Your task to perform on an android device: Open the calendar and show me this week's events? Image 0: 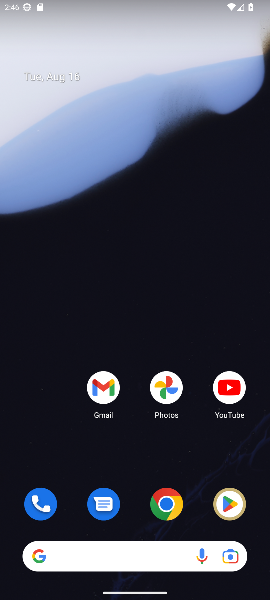
Step 0: drag from (102, 542) to (110, 280)
Your task to perform on an android device: Open the calendar and show me this week's events? Image 1: 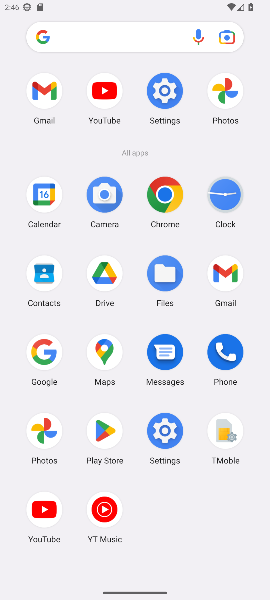
Step 1: click (37, 189)
Your task to perform on an android device: Open the calendar and show me this week's events? Image 2: 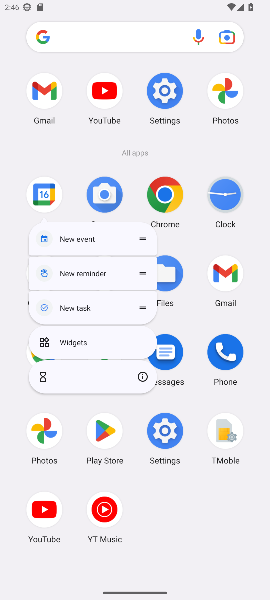
Step 2: click (47, 195)
Your task to perform on an android device: Open the calendar and show me this week's events? Image 3: 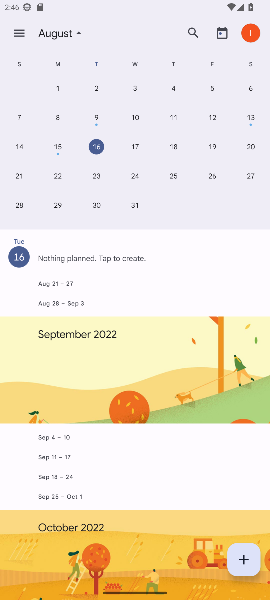
Step 3: click (131, 137)
Your task to perform on an android device: Open the calendar and show me this week's events? Image 4: 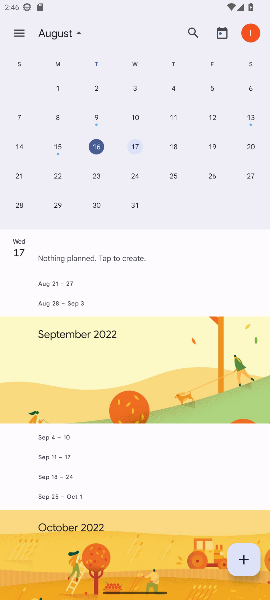
Step 4: click (172, 137)
Your task to perform on an android device: Open the calendar and show me this week's events? Image 5: 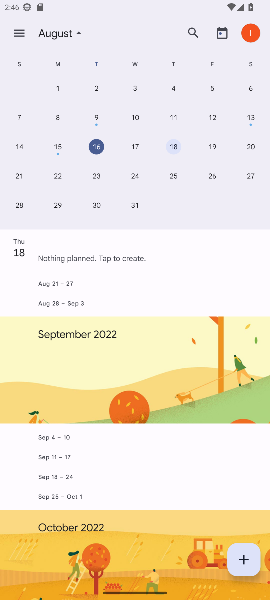
Step 5: click (211, 147)
Your task to perform on an android device: Open the calendar and show me this week's events? Image 6: 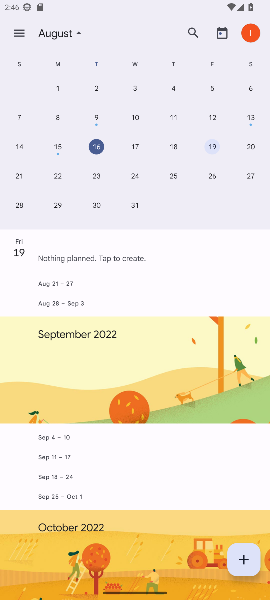
Step 6: click (250, 153)
Your task to perform on an android device: Open the calendar and show me this week's events? Image 7: 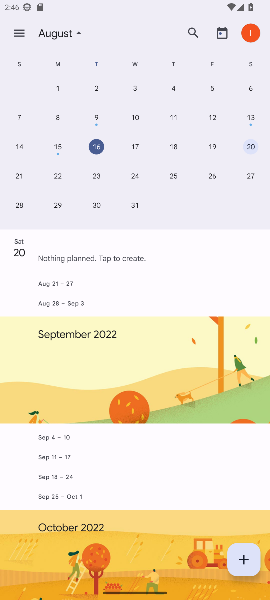
Step 7: click (18, 175)
Your task to perform on an android device: Open the calendar and show me this week's events? Image 8: 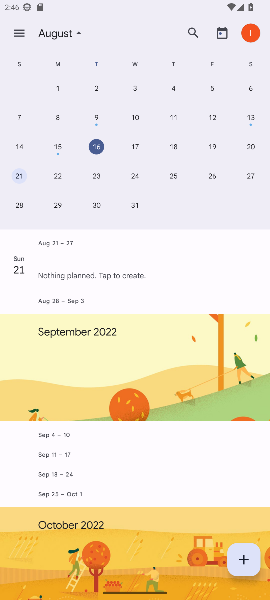
Step 8: task complete